Your task to perform on an android device: Show me recent news Image 0: 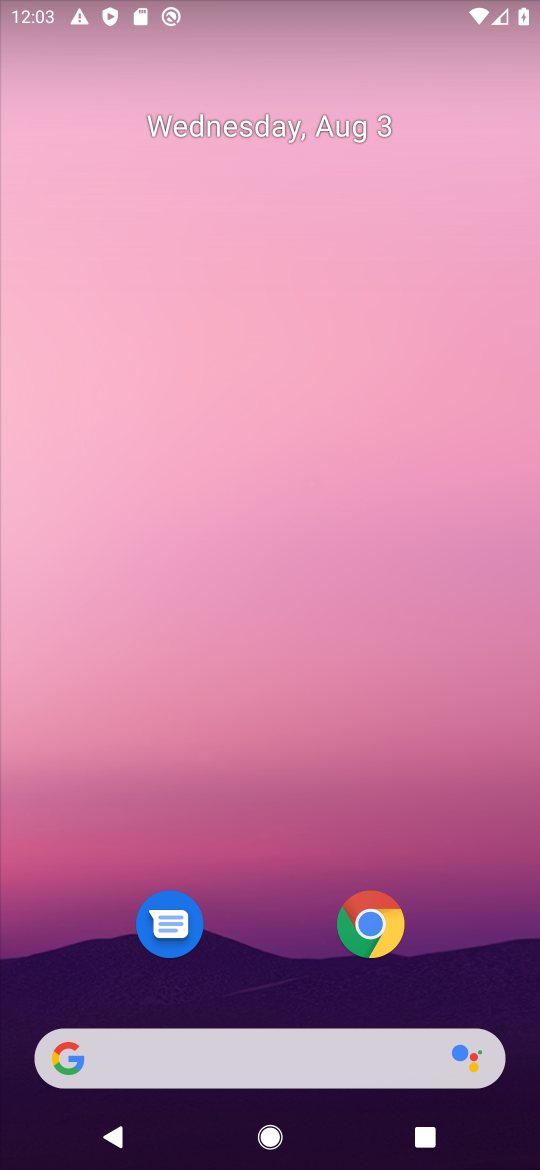
Step 0: click (237, 1061)
Your task to perform on an android device: Show me recent news Image 1: 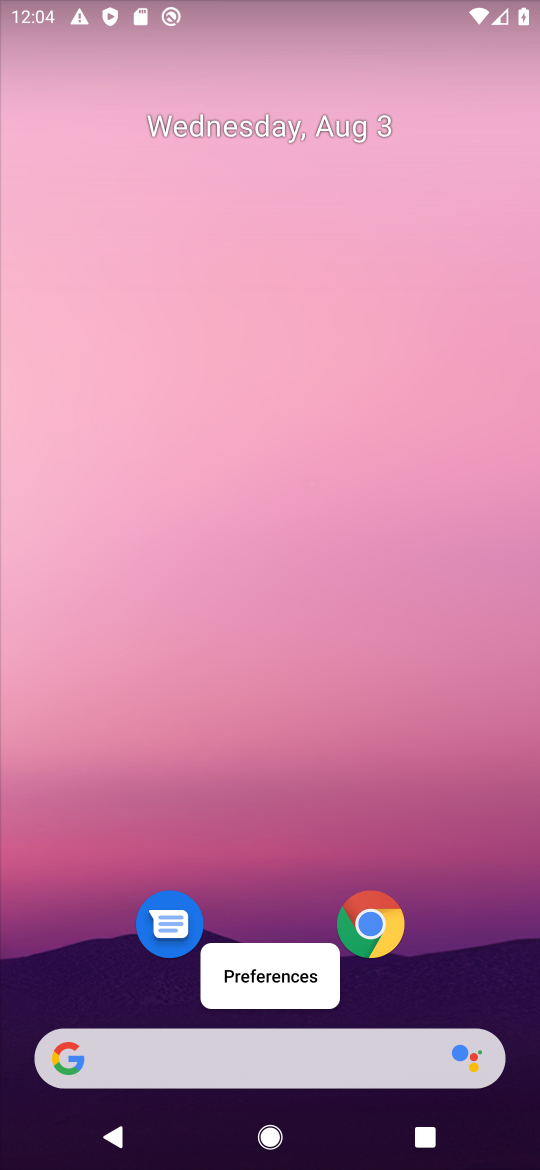
Step 1: click (236, 1055)
Your task to perform on an android device: Show me recent news Image 2: 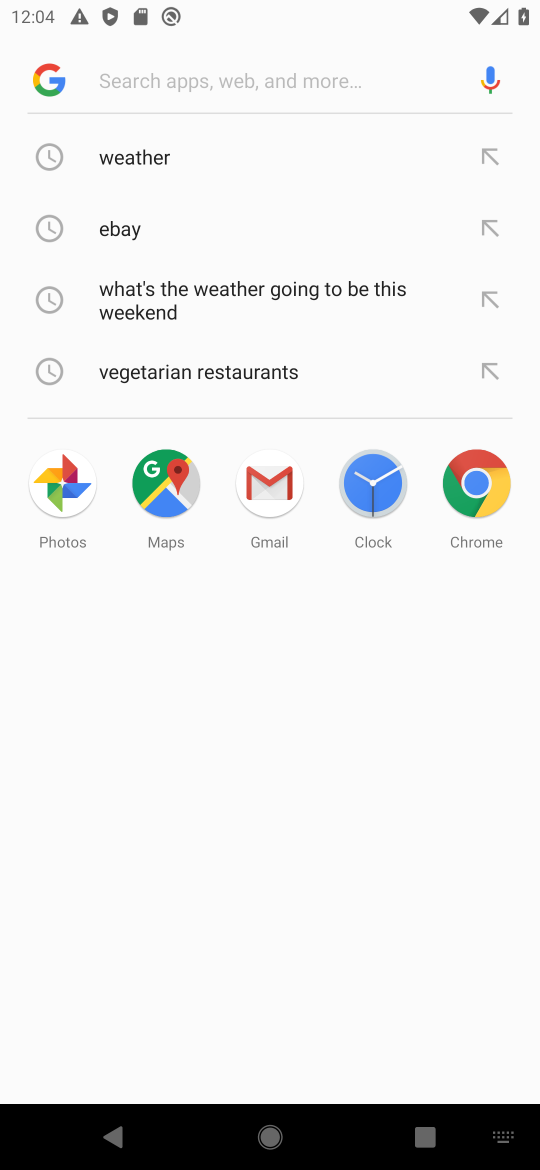
Step 2: click (140, 73)
Your task to perform on an android device: Show me recent news Image 3: 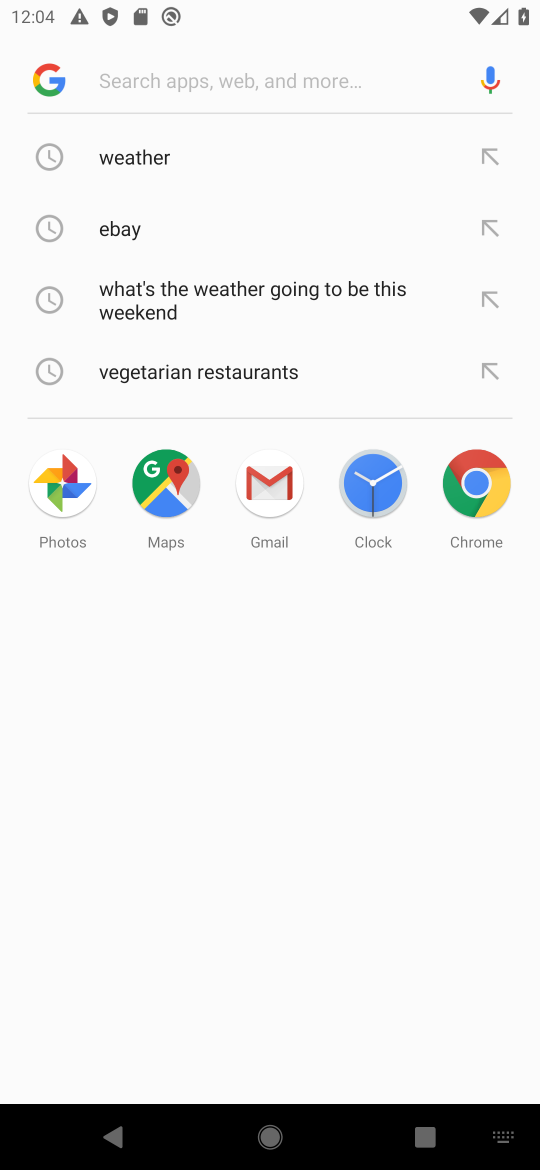
Step 3: type "recent news"
Your task to perform on an android device: Show me recent news Image 4: 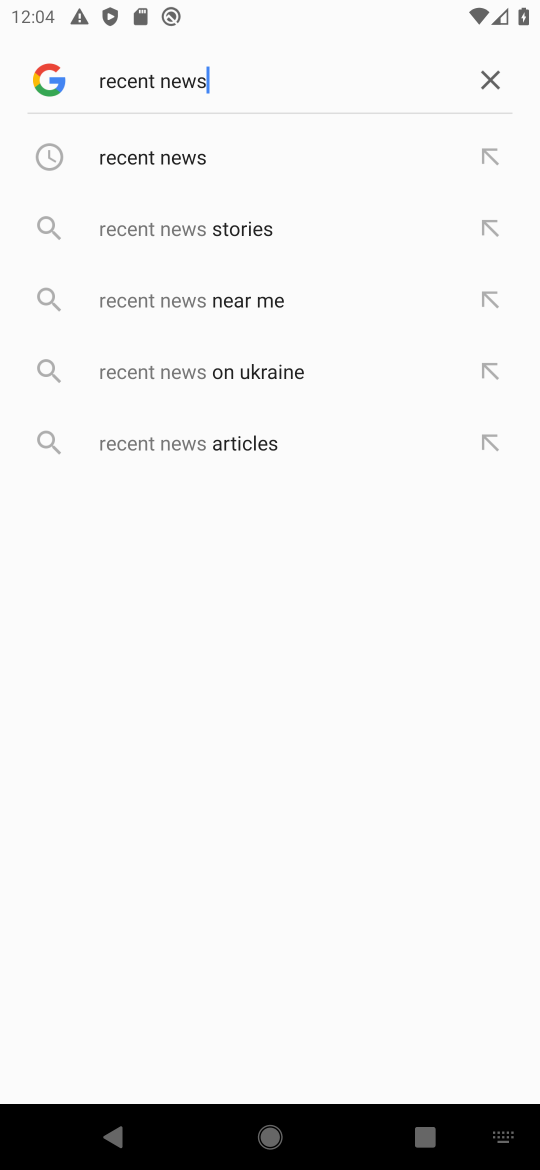
Step 4: click (122, 153)
Your task to perform on an android device: Show me recent news Image 5: 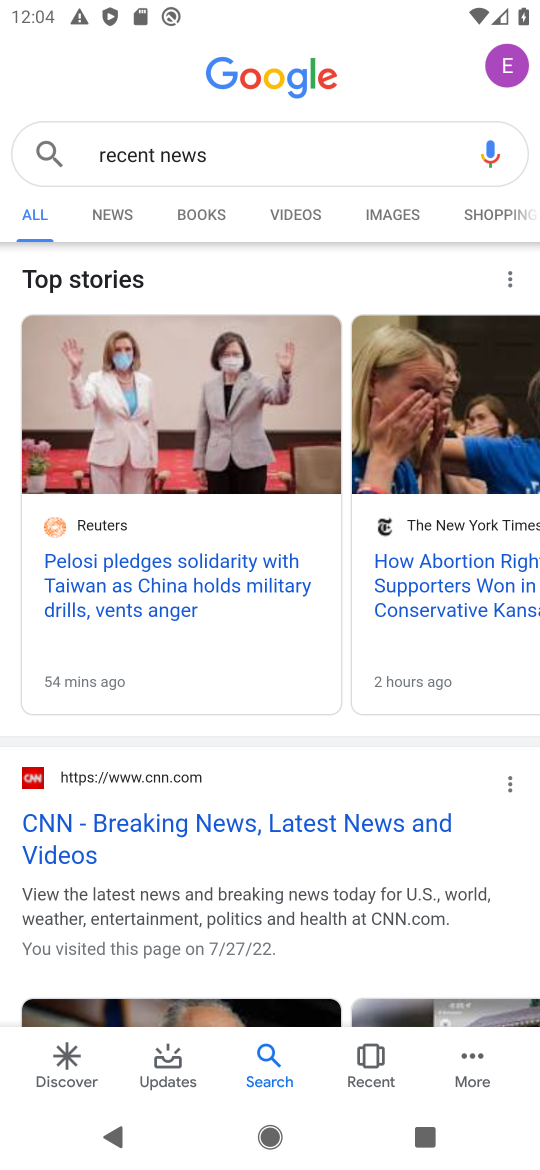
Step 5: task complete